Your task to perform on an android device: turn on notifications settings in the gmail app Image 0: 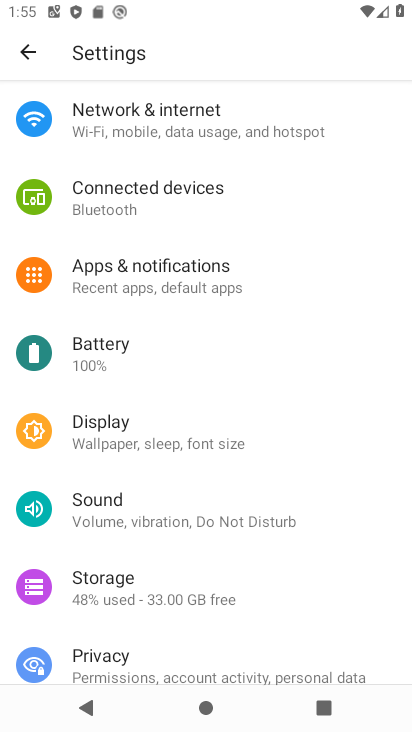
Step 0: click (208, 276)
Your task to perform on an android device: turn on notifications settings in the gmail app Image 1: 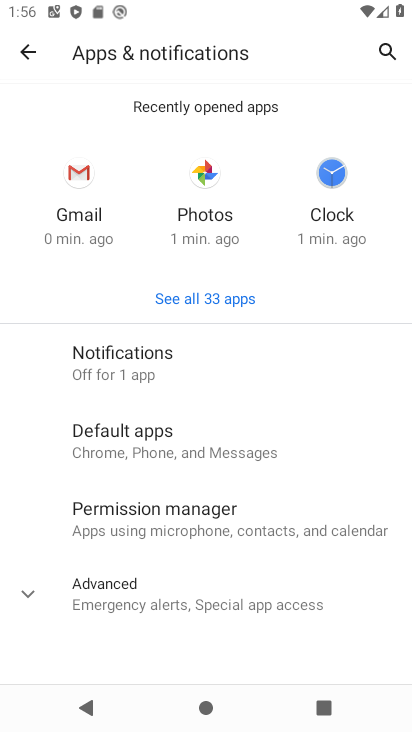
Step 1: click (146, 375)
Your task to perform on an android device: turn on notifications settings in the gmail app Image 2: 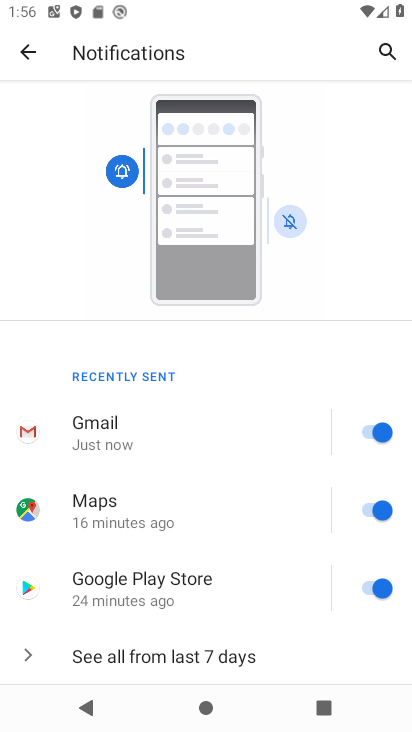
Step 2: task complete